Your task to perform on an android device: Open ESPN.com Image 0: 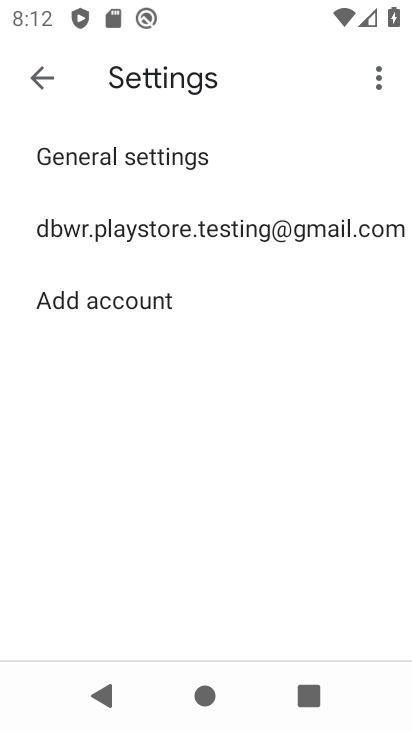
Step 0: press home button
Your task to perform on an android device: Open ESPN.com Image 1: 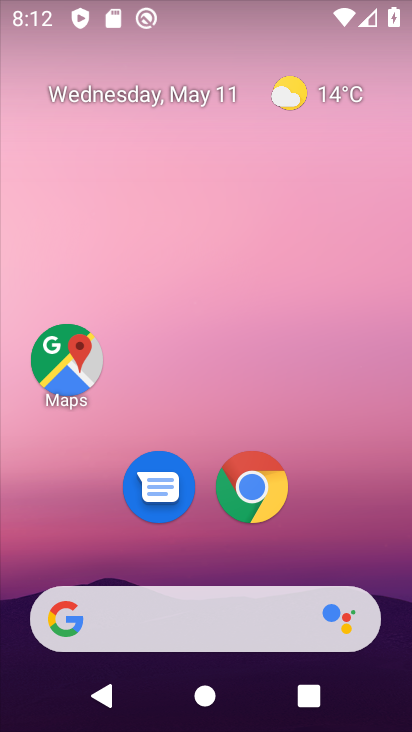
Step 1: drag from (176, 588) to (179, 206)
Your task to perform on an android device: Open ESPN.com Image 2: 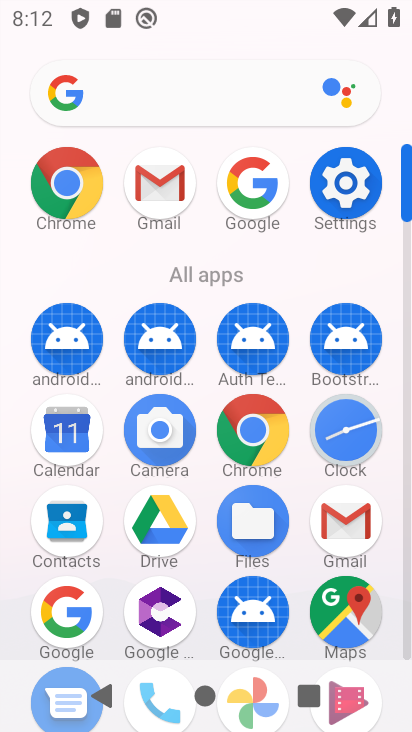
Step 2: click (246, 443)
Your task to perform on an android device: Open ESPN.com Image 3: 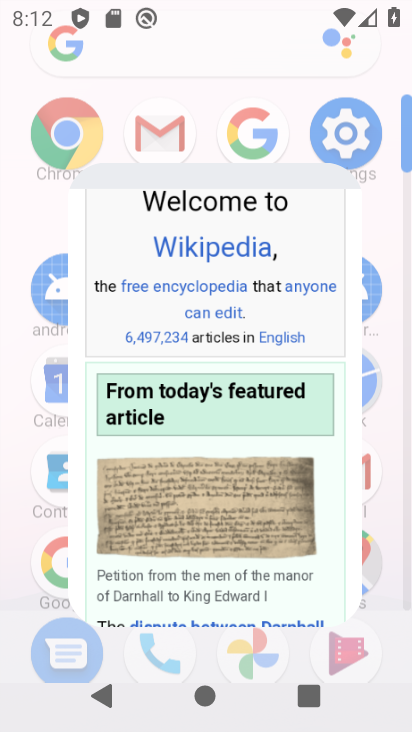
Step 3: click (253, 432)
Your task to perform on an android device: Open ESPN.com Image 4: 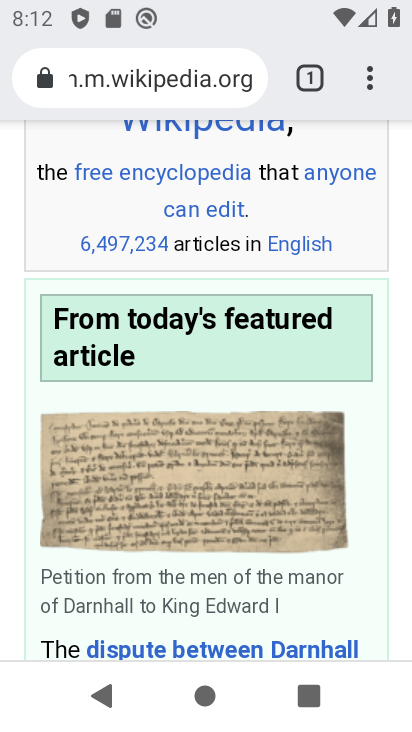
Step 4: click (311, 76)
Your task to perform on an android device: Open ESPN.com Image 5: 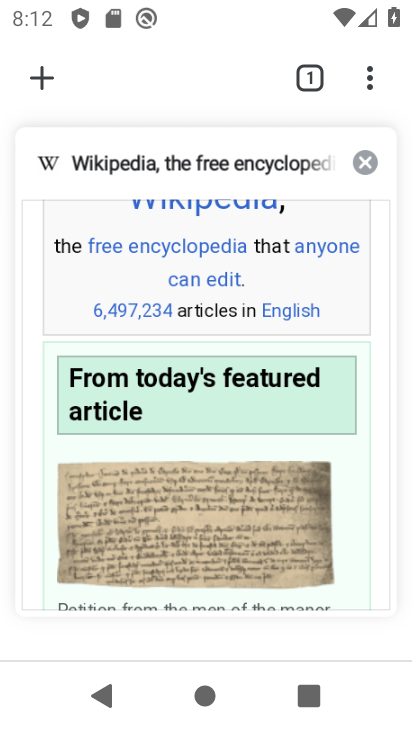
Step 5: click (357, 154)
Your task to perform on an android device: Open ESPN.com Image 6: 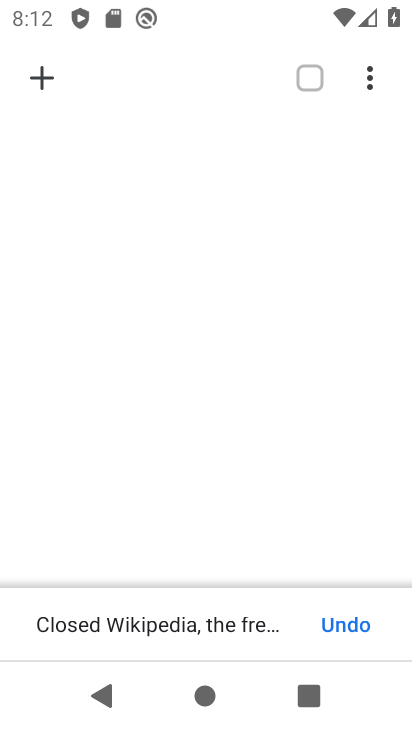
Step 6: click (44, 89)
Your task to perform on an android device: Open ESPN.com Image 7: 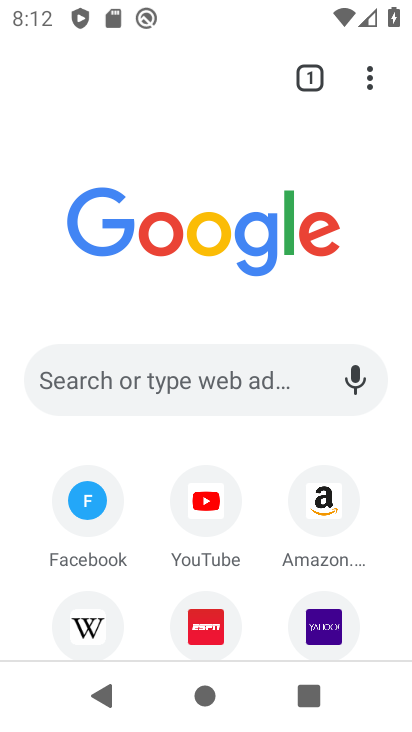
Step 7: drag from (136, 610) to (159, 338)
Your task to perform on an android device: Open ESPN.com Image 8: 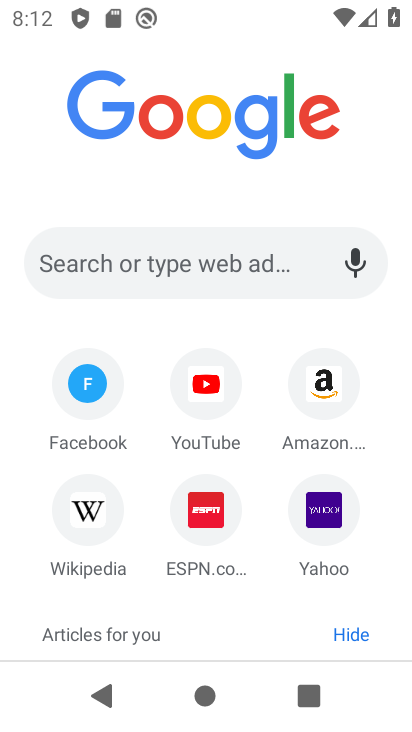
Step 8: drag from (145, 638) to (206, 526)
Your task to perform on an android device: Open ESPN.com Image 9: 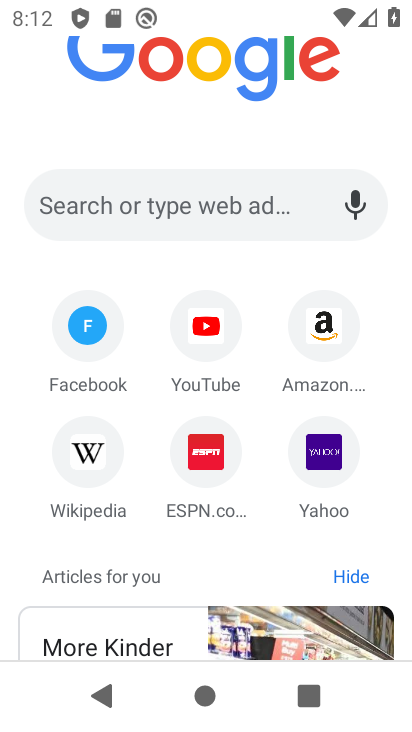
Step 9: click (222, 460)
Your task to perform on an android device: Open ESPN.com Image 10: 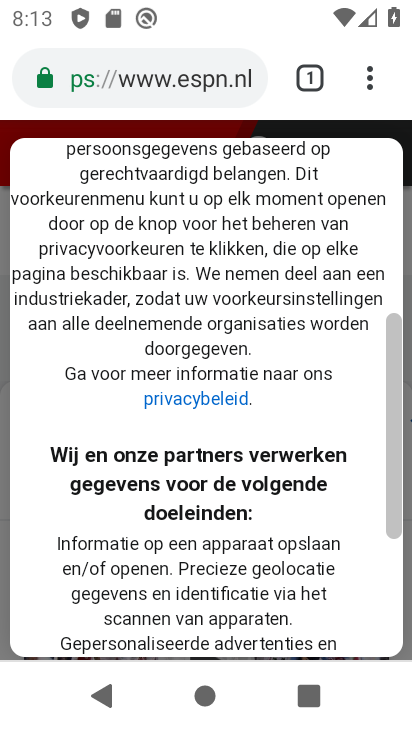
Step 10: task complete